Your task to perform on an android device: change text size in settings app Image 0: 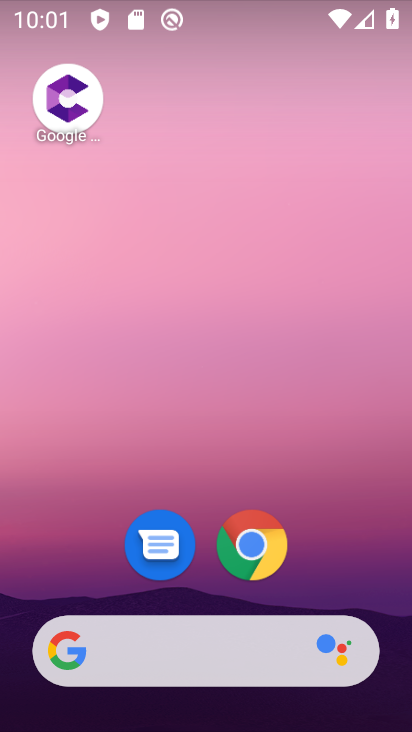
Step 0: drag from (40, 323) to (409, 395)
Your task to perform on an android device: change text size in settings app Image 1: 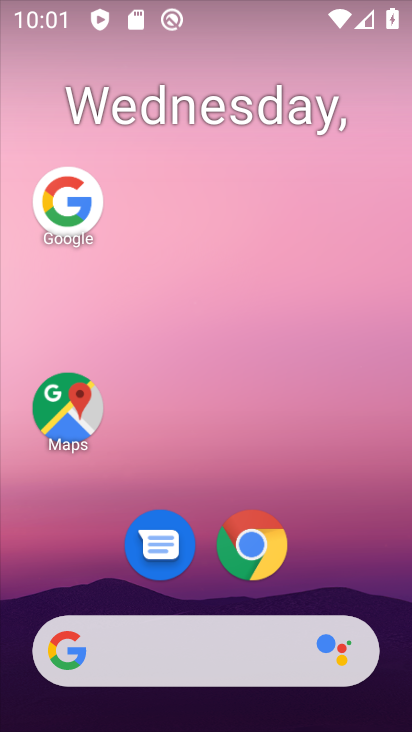
Step 1: drag from (336, 600) to (398, 195)
Your task to perform on an android device: change text size in settings app Image 2: 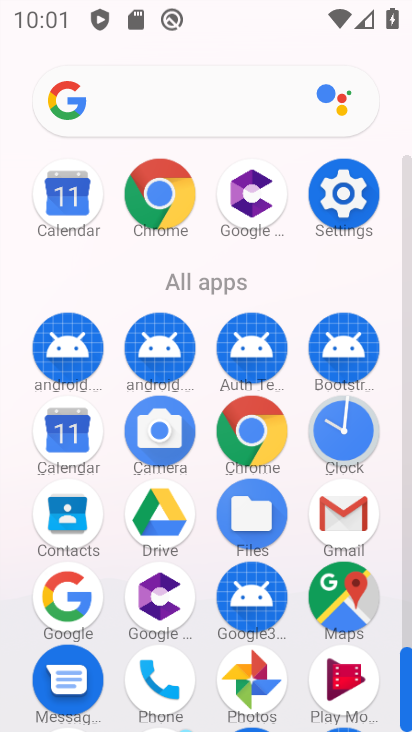
Step 2: drag from (340, 198) to (198, 261)
Your task to perform on an android device: change text size in settings app Image 3: 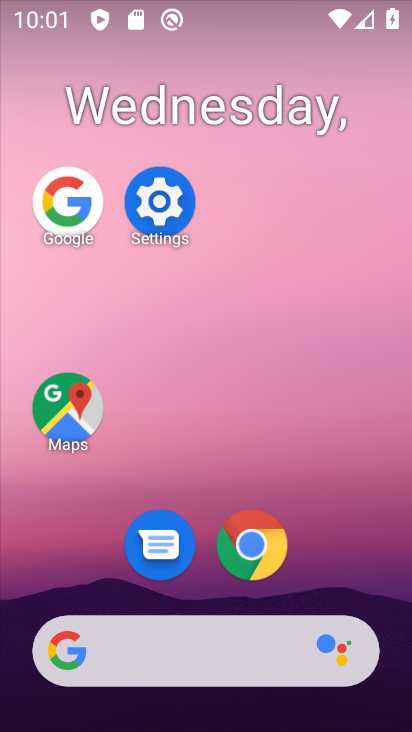
Step 3: click (164, 171)
Your task to perform on an android device: change text size in settings app Image 4: 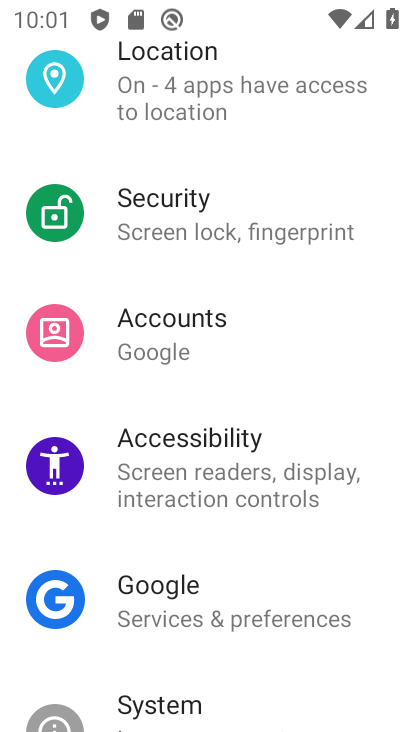
Step 4: drag from (327, 173) to (192, 531)
Your task to perform on an android device: change text size in settings app Image 5: 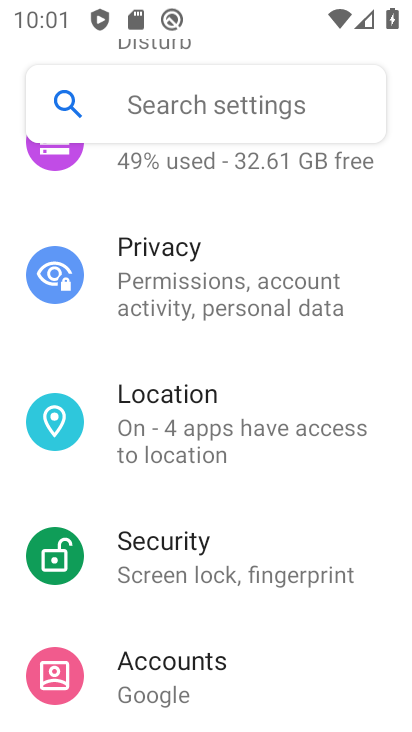
Step 5: drag from (276, 198) to (192, 549)
Your task to perform on an android device: change text size in settings app Image 6: 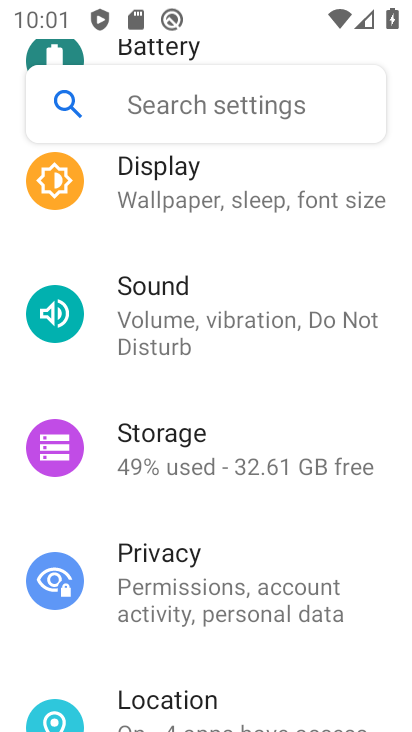
Step 6: click (299, 205)
Your task to perform on an android device: change text size in settings app Image 7: 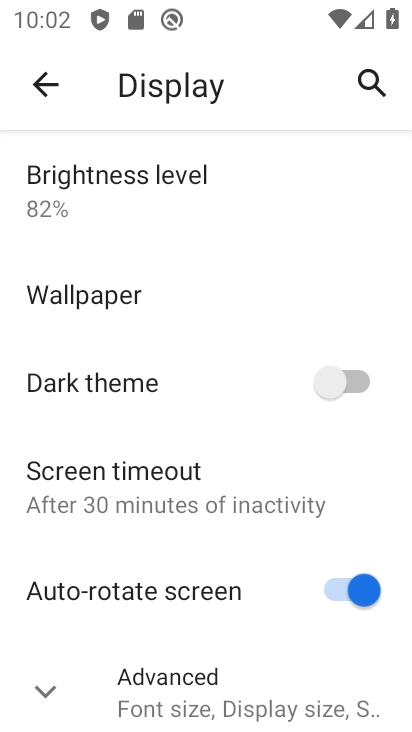
Step 7: click (69, 694)
Your task to perform on an android device: change text size in settings app Image 8: 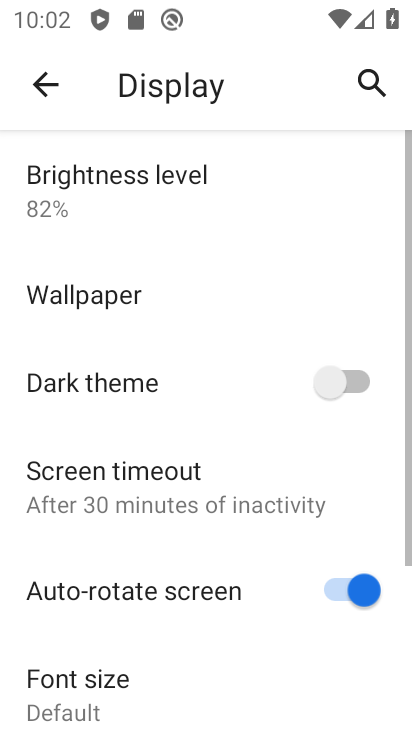
Step 8: click (77, 679)
Your task to perform on an android device: change text size in settings app Image 9: 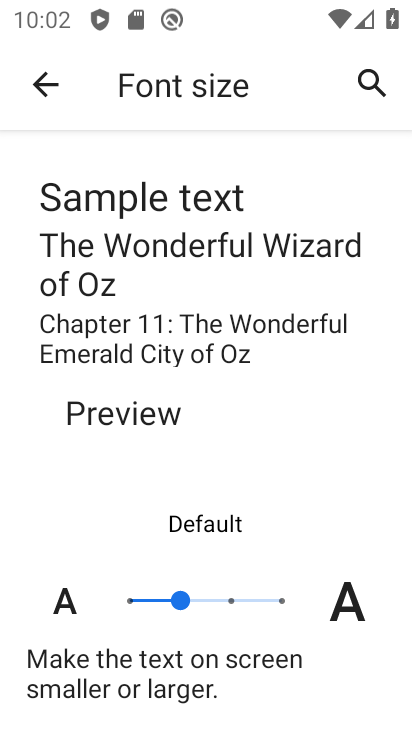
Step 9: click (228, 602)
Your task to perform on an android device: change text size in settings app Image 10: 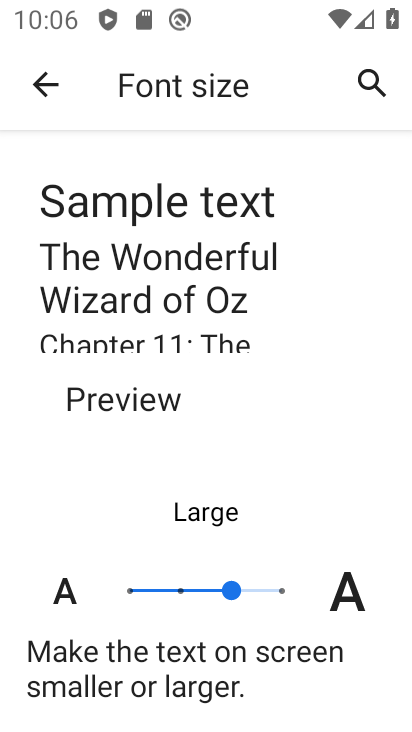
Step 10: task complete